Your task to perform on an android device: Open Wikipedia Image 0: 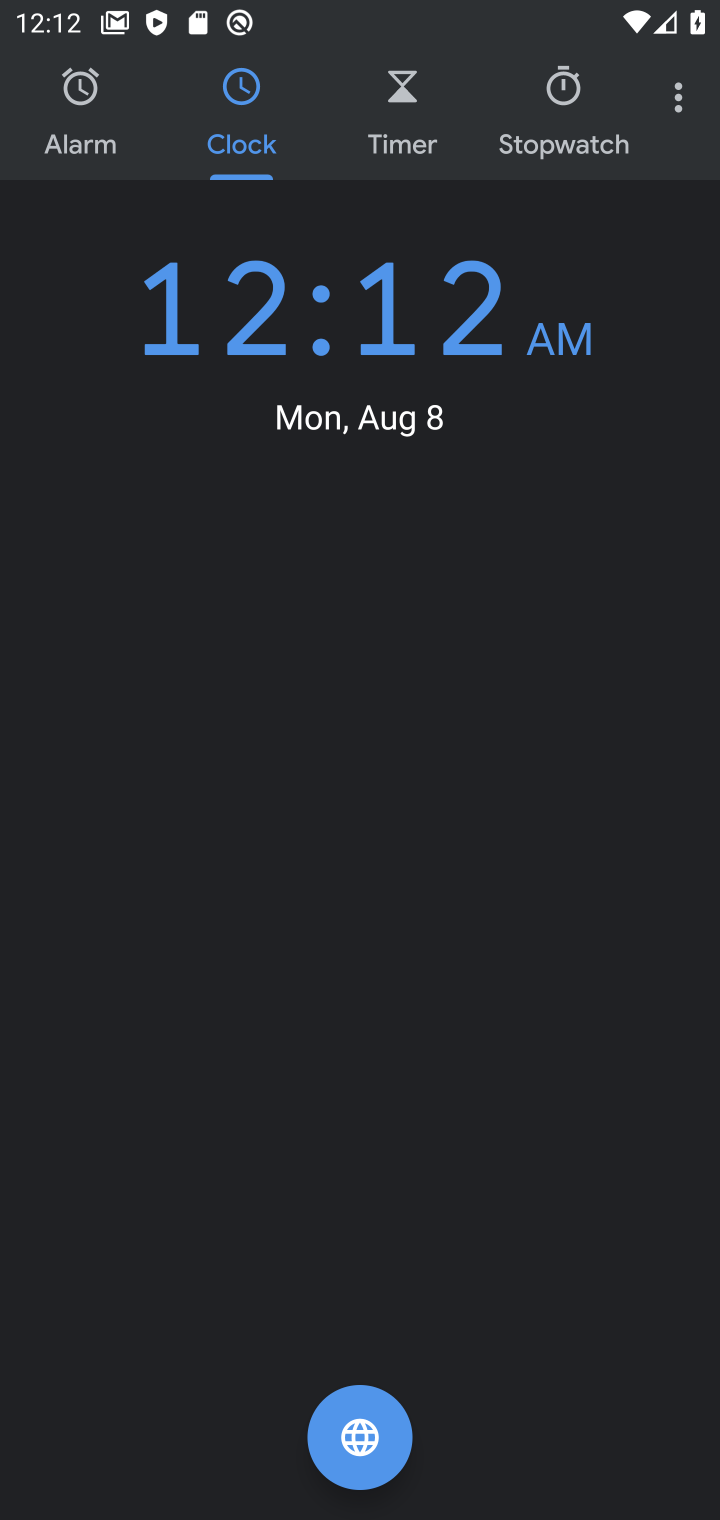
Step 0: press home button
Your task to perform on an android device: Open Wikipedia Image 1: 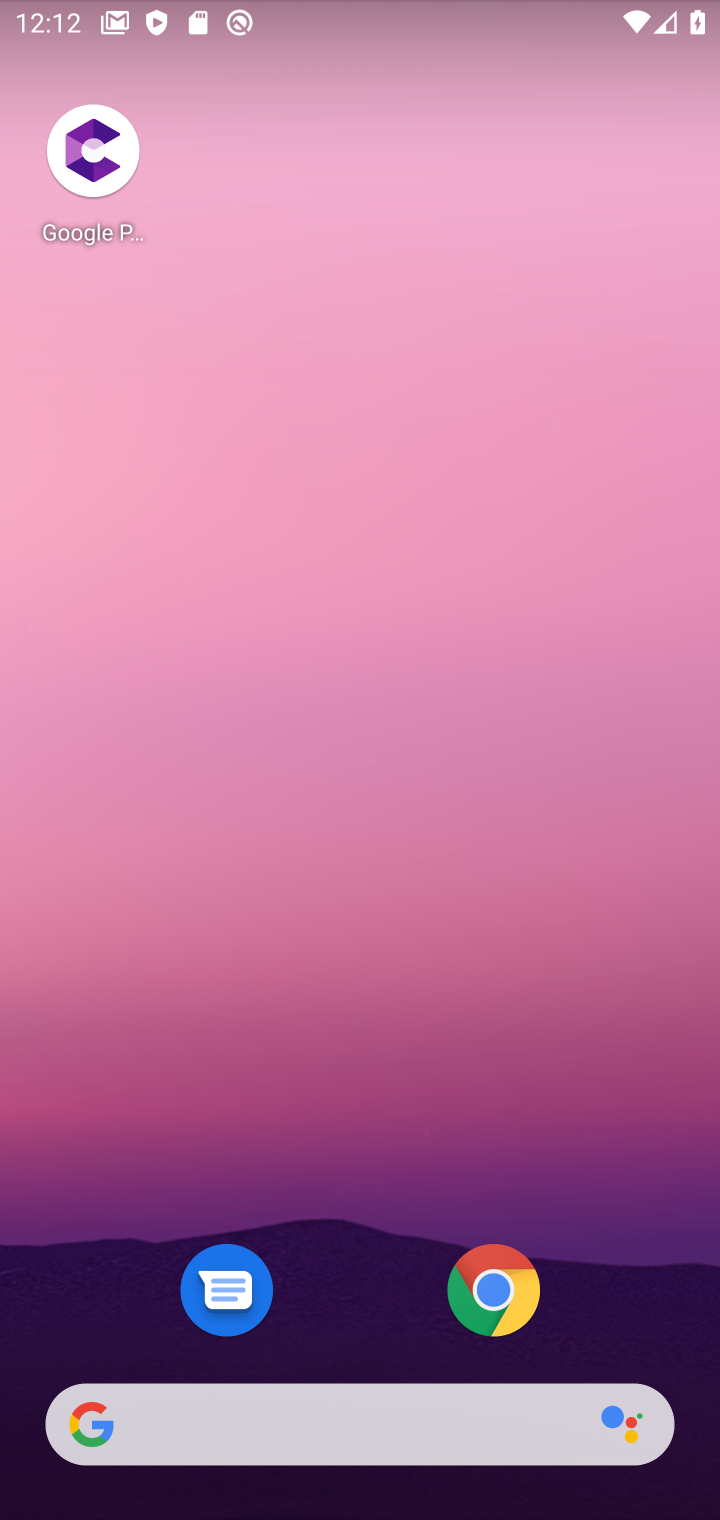
Step 1: click (481, 1269)
Your task to perform on an android device: Open Wikipedia Image 2: 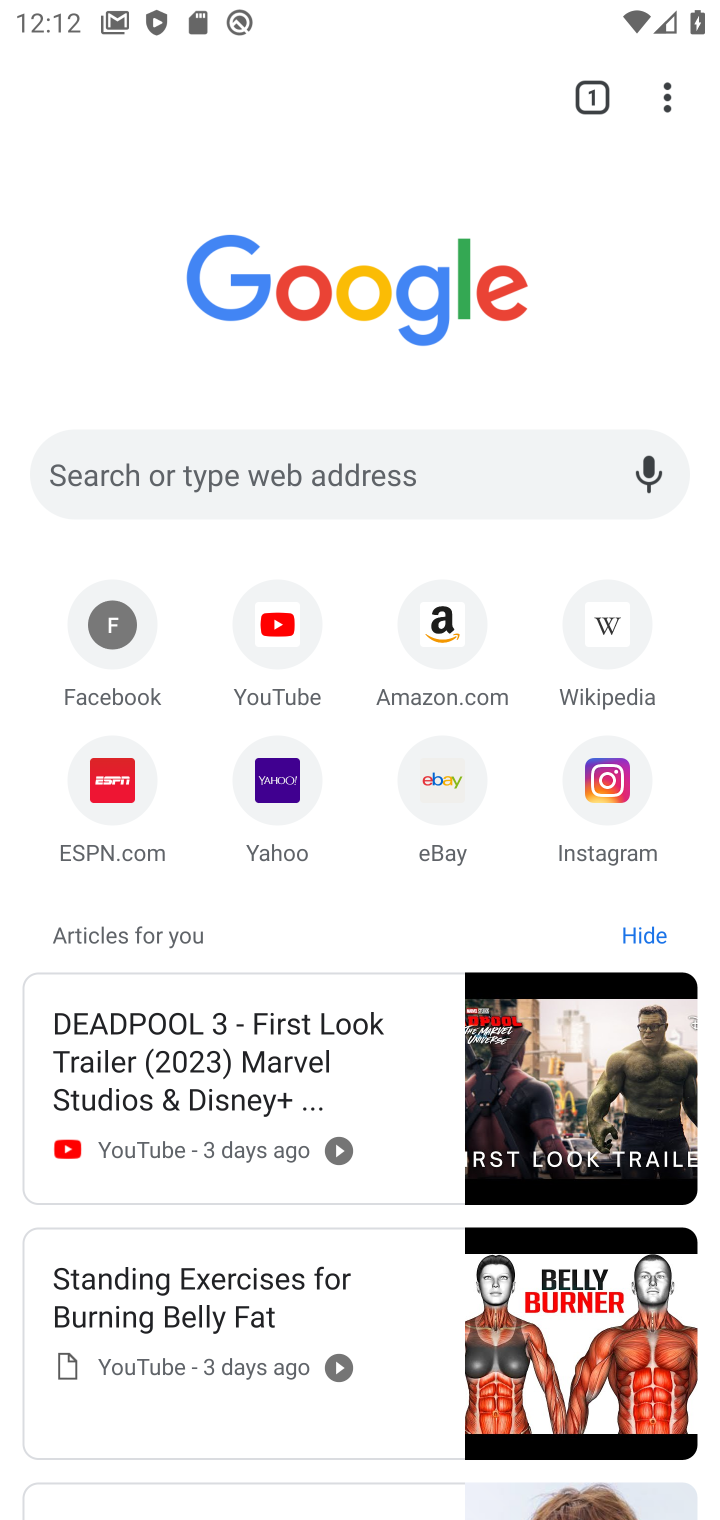
Step 2: click (619, 644)
Your task to perform on an android device: Open Wikipedia Image 3: 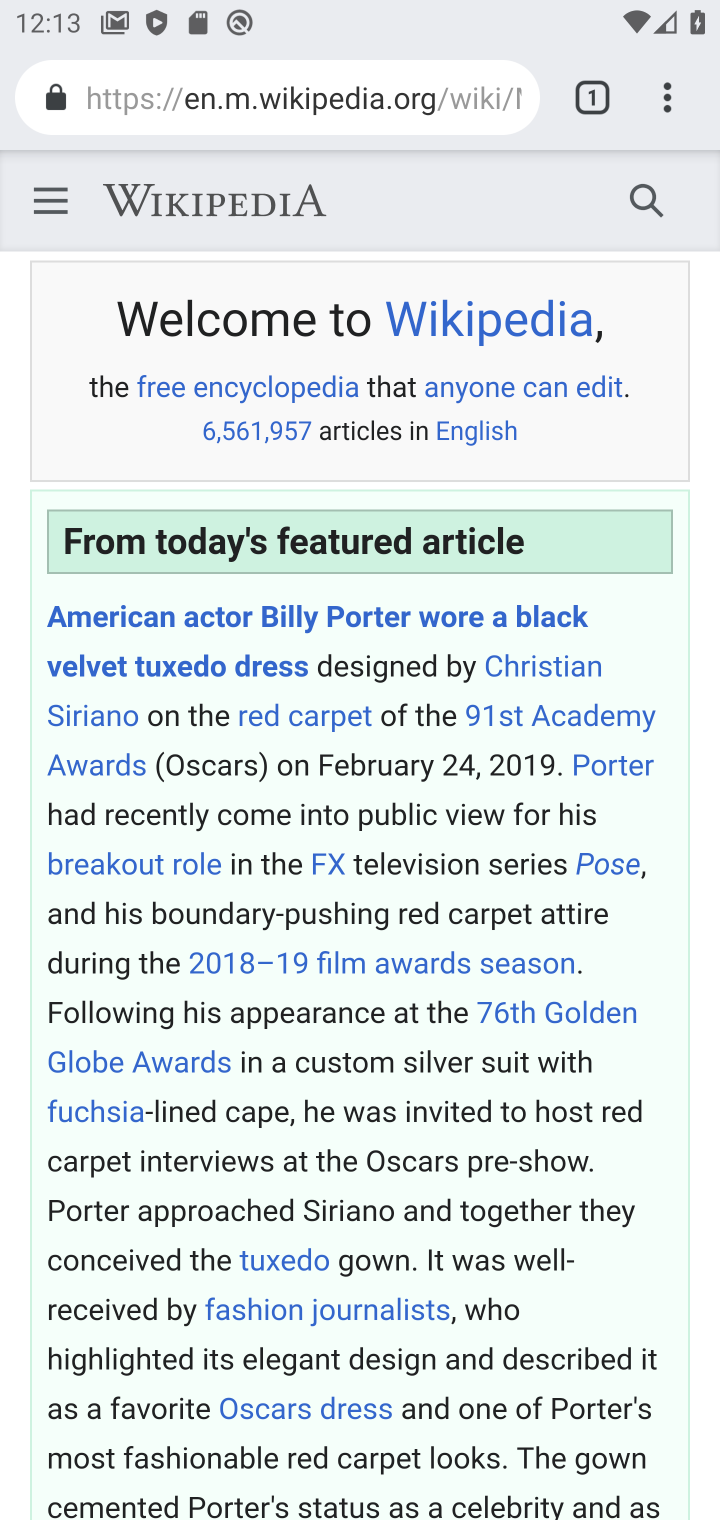
Step 3: task complete